Your task to perform on an android device: Go to display settings Image 0: 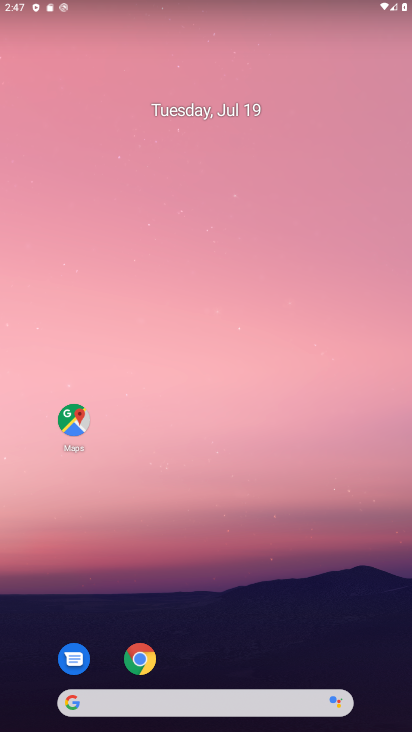
Step 0: drag from (314, 596) to (299, 52)
Your task to perform on an android device: Go to display settings Image 1: 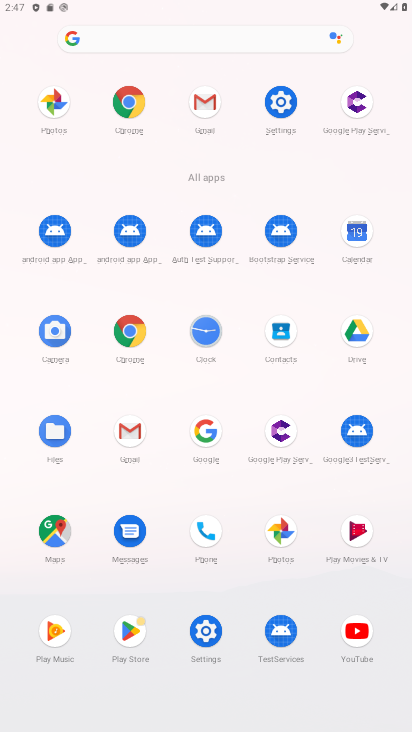
Step 1: click (284, 104)
Your task to perform on an android device: Go to display settings Image 2: 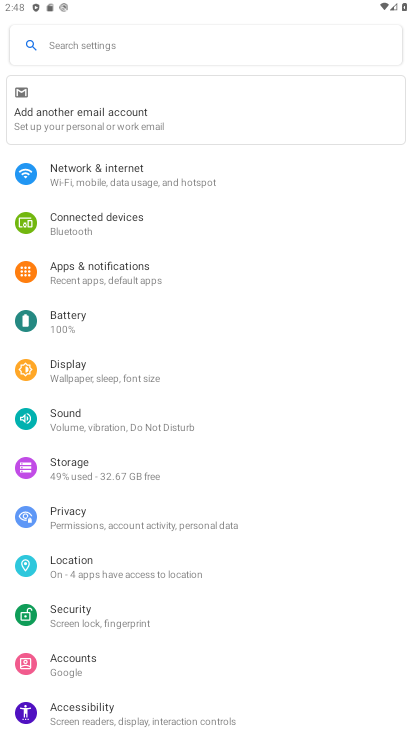
Step 2: click (134, 377)
Your task to perform on an android device: Go to display settings Image 3: 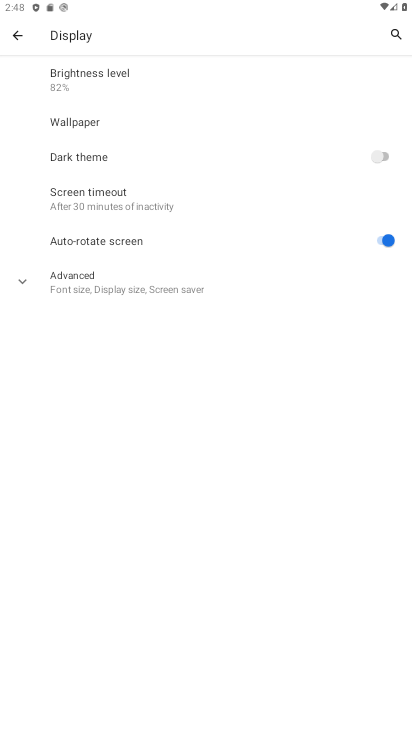
Step 3: task complete